Your task to perform on an android device: find which apps use the phone's location Image 0: 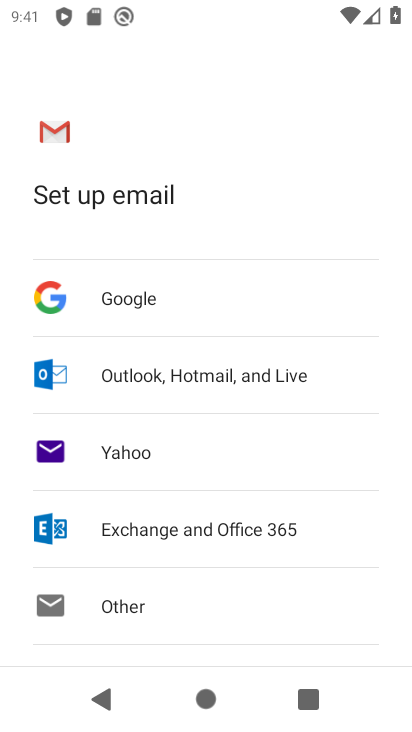
Step 0: press home button
Your task to perform on an android device: find which apps use the phone's location Image 1: 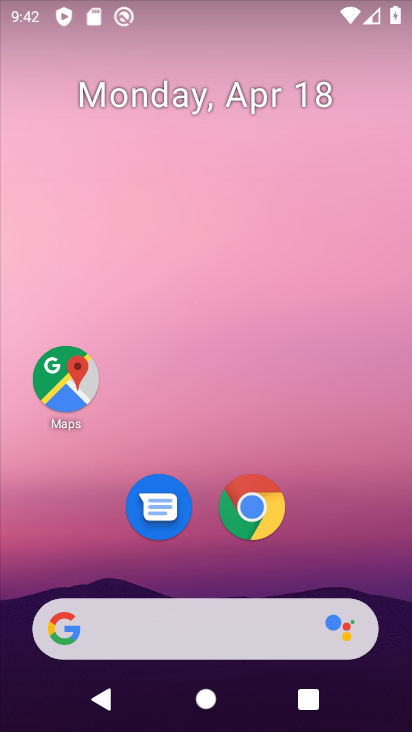
Step 1: drag from (240, 584) to (186, 103)
Your task to perform on an android device: find which apps use the phone's location Image 2: 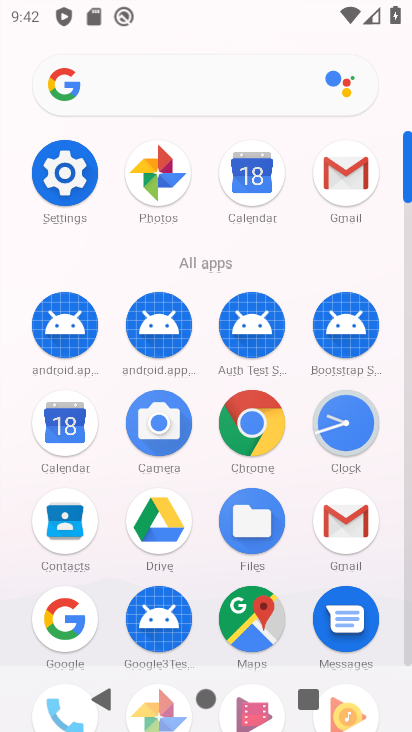
Step 2: click (63, 186)
Your task to perform on an android device: find which apps use the phone's location Image 3: 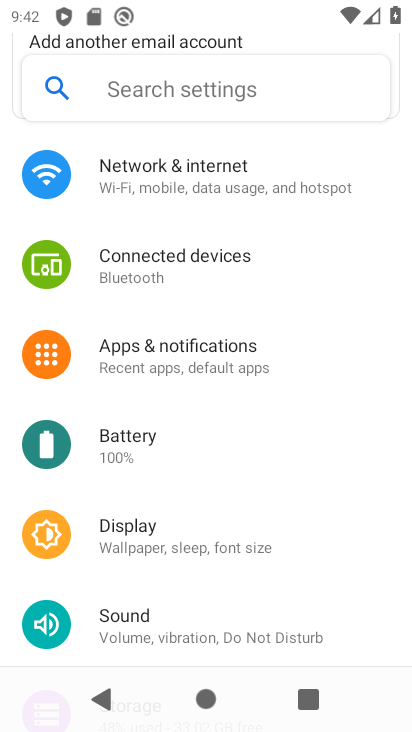
Step 3: drag from (133, 495) to (117, 191)
Your task to perform on an android device: find which apps use the phone's location Image 4: 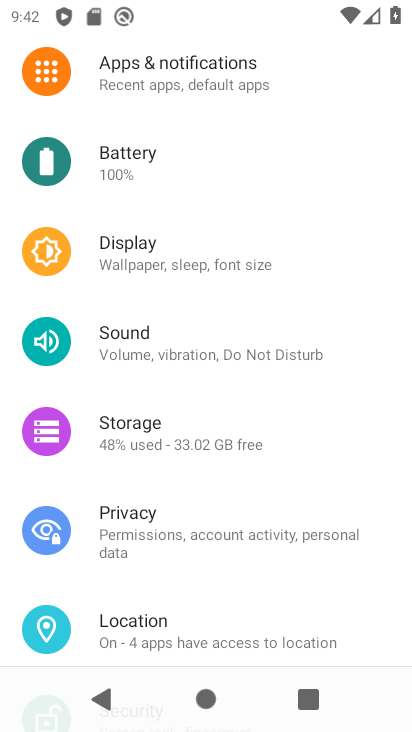
Step 4: click (152, 627)
Your task to perform on an android device: find which apps use the phone's location Image 5: 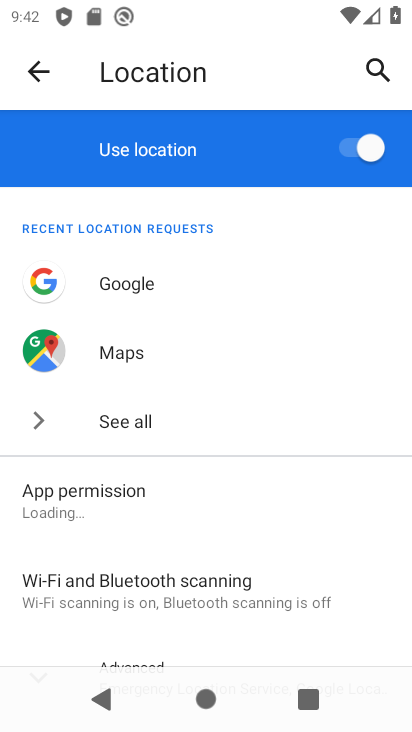
Step 5: click (149, 494)
Your task to perform on an android device: find which apps use the phone's location Image 6: 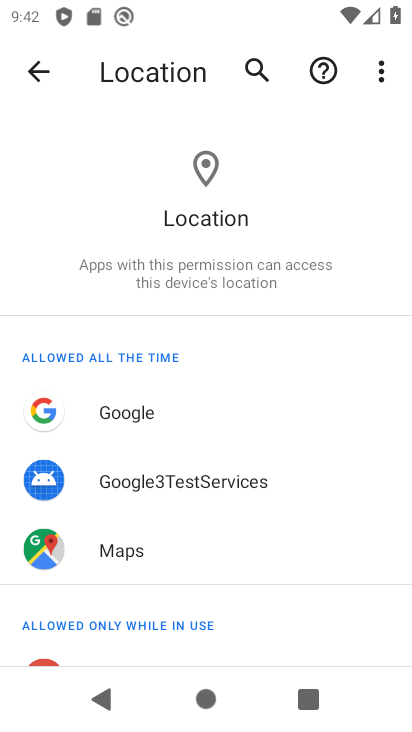
Step 6: task complete